Your task to perform on an android device: turn off sleep mode Image 0: 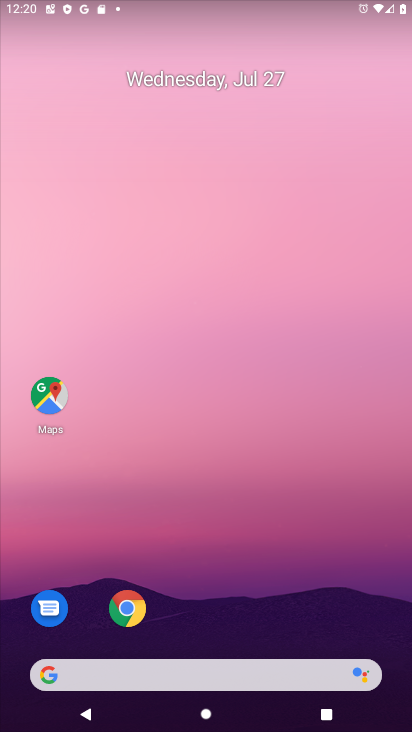
Step 0: drag from (199, 677) to (207, 261)
Your task to perform on an android device: turn off sleep mode Image 1: 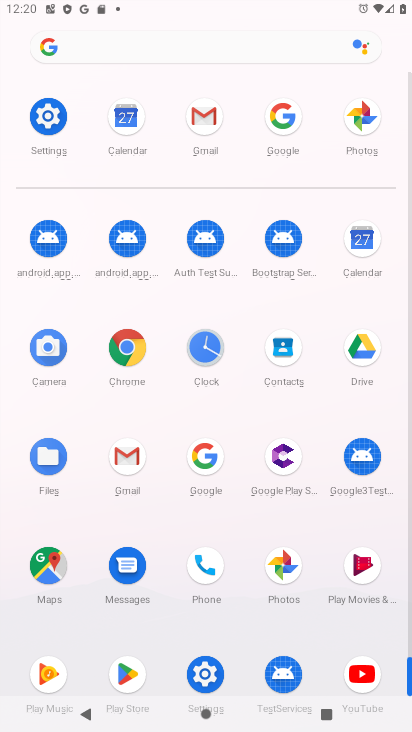
Step 1: click (48, 117)
Your task to perform on an android device: turn off sleep mode Image 2: 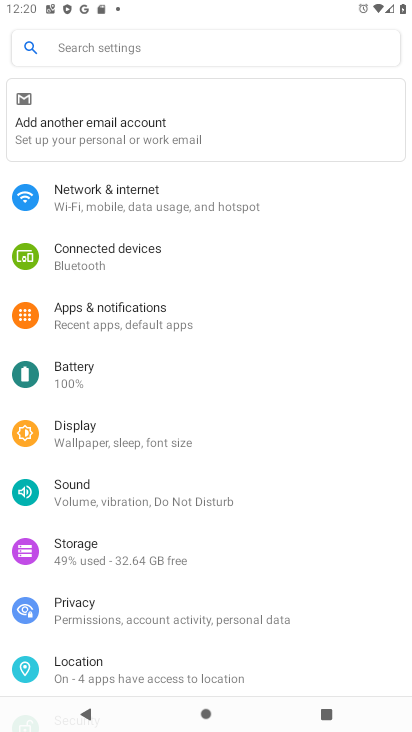
Step 2: click (176, 434)
Your task to perform on an android device: turn off sleep mode Image 3: 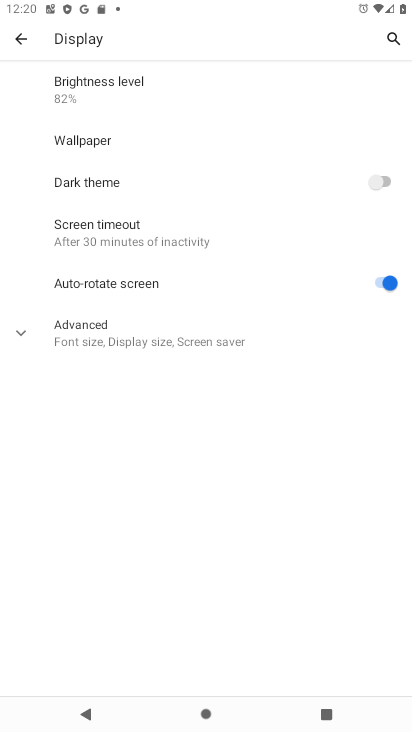
Step 3: click (111, 238)
Your task to perform on an android device: turn off sleep mode Image 4: 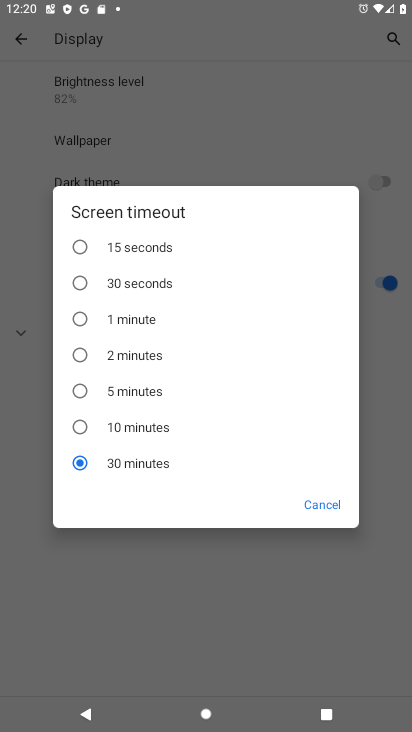
Step 4: click (333, 505)
Your task to perform on an android device: turn off sleep mode Image 5: 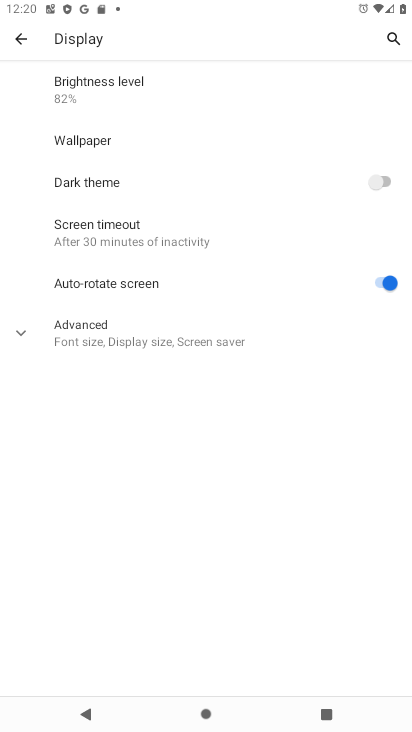
Step 5: task complete